Your task to perform on an android device: check battery use Image 0: 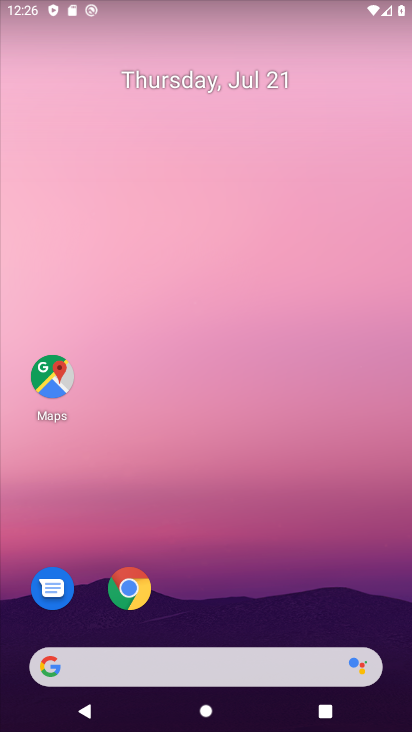
Step 0: drag from (227, 485) to (266, 167)
Your task to perform on an android device: check battery use Image 1: 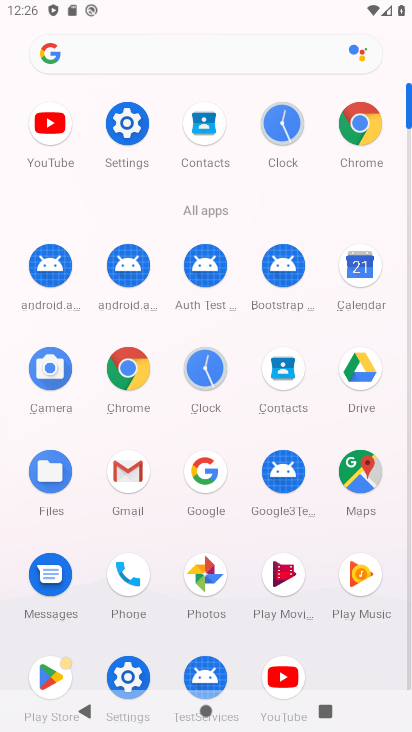
Step 1: click (134, 668)
Your task to perform on an android device: check battery use Image 2: 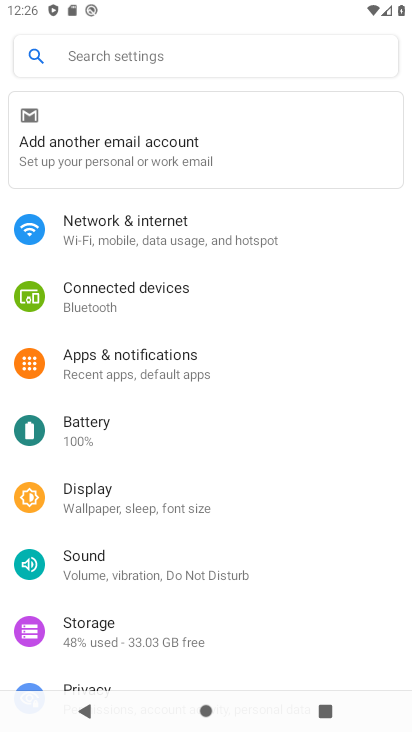
Step 2: drag from (125, 567) to (168, 302)
Your task to perform on an android device: check battery use Image 3: 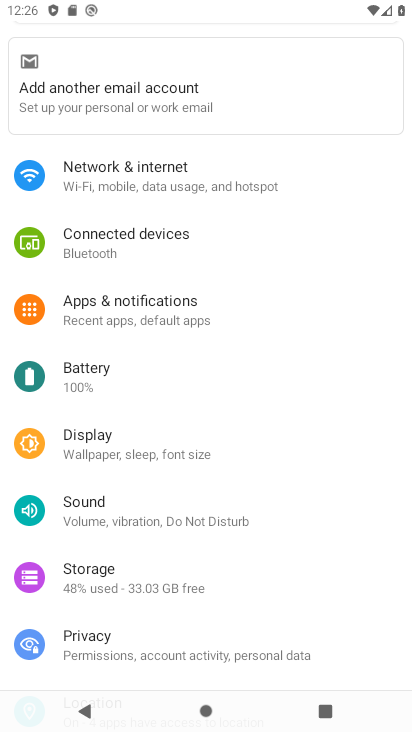
Step 3: click (122, 382)
Your task to perform on an android device: check battery use Image 4: 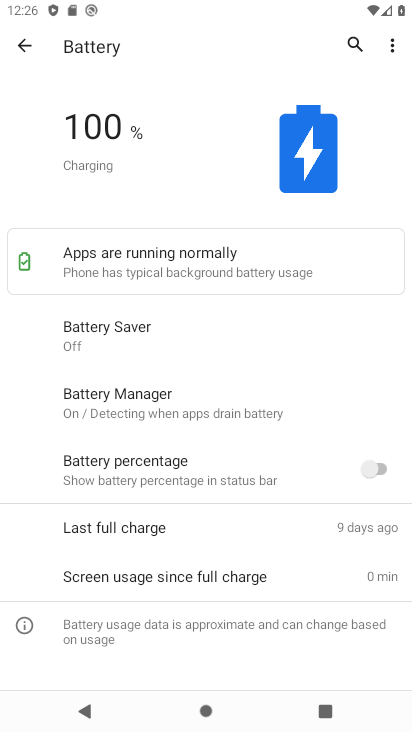
Step 4: task complete